Your task to perform on an android device: turn on notifications settings in the gmail app Image 0: 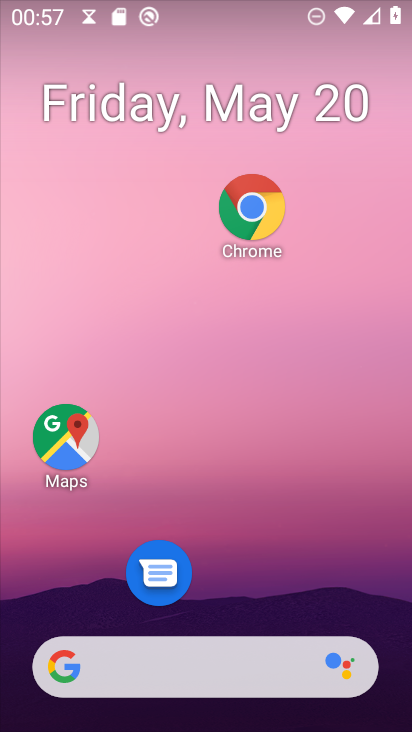
Step 0: drag from (262, 587) to (338, 101)
Your task to perform on an android device: turn on notifications settings in the gmail app Image 1: 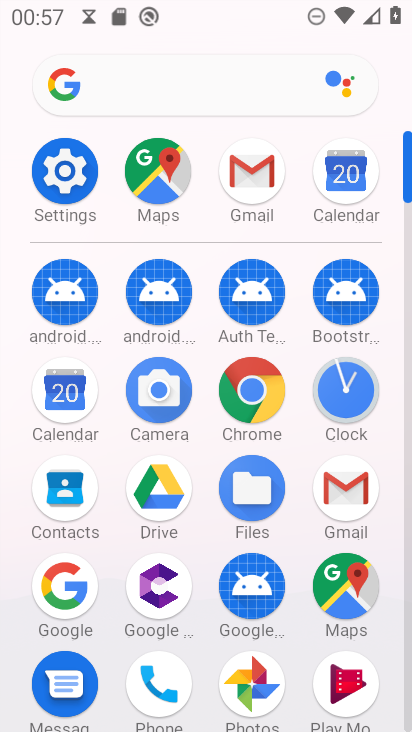
Step 1: click (258, 170)
Your task to perform on an android device: turn on notifications settings in the gmail app Image 2: 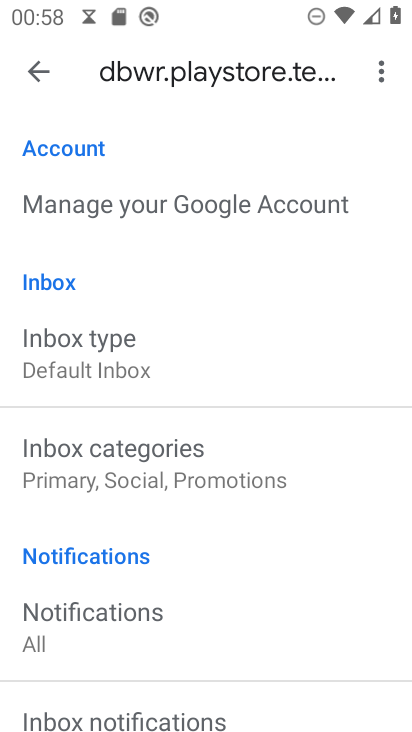
Step 2: drag from (155, 616) to (204, 204)
Your task to perform on an android device: turn on notifications settings in the gmail app Image 3: 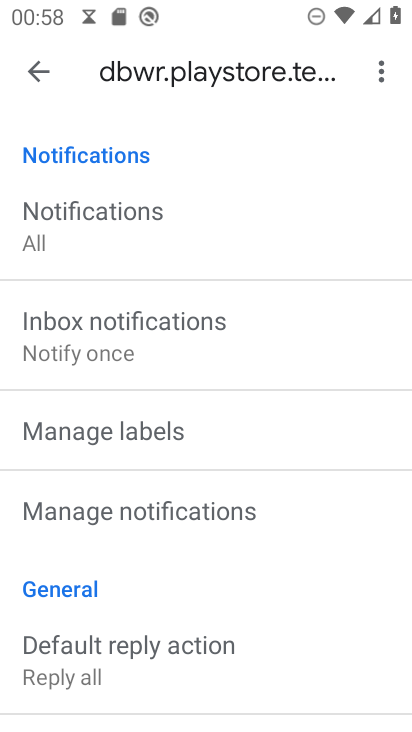
Step 3: click (112, 493)
Your task to perform on an android device: turn on notifications settings in the gmail app Image 4: 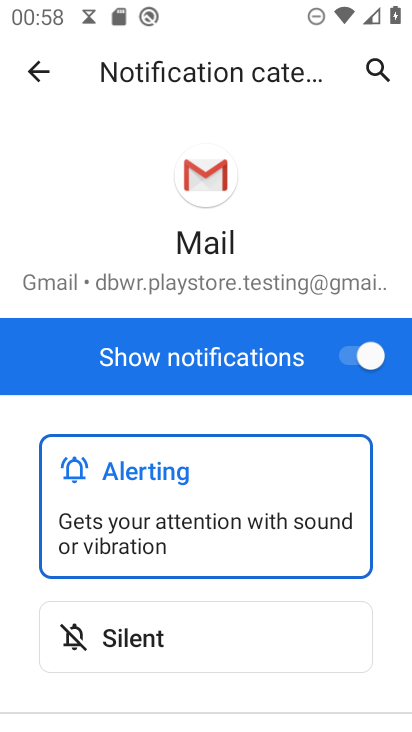
Step 4: task complete